Your task to perform on an android device: choose inbox layout in the gmail app Image 0: 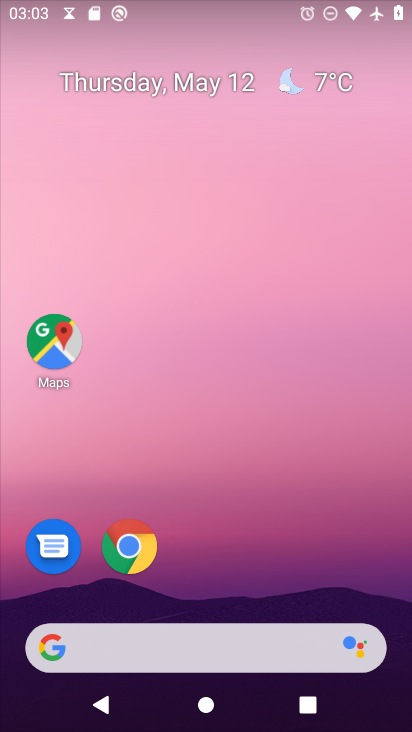
Step 0: drag from (169, 644) to (272, 168)
Your task to perform on an android device: choose inbox layout in the gmail app Image 1: 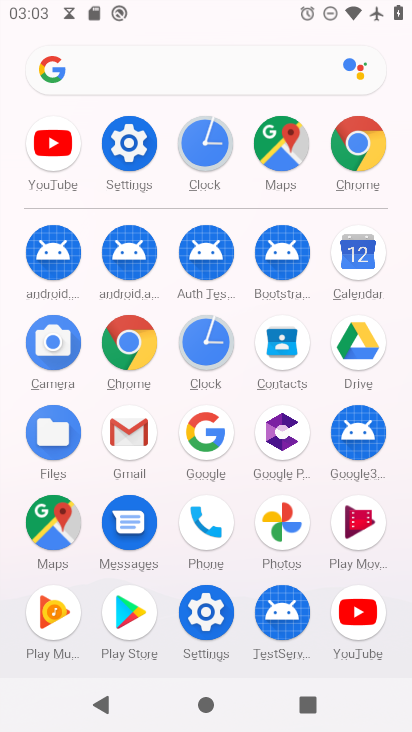
Step 1: click (120, 449)
Your task to perform on an android device: choose inbox layout in the gmail app Image 2: 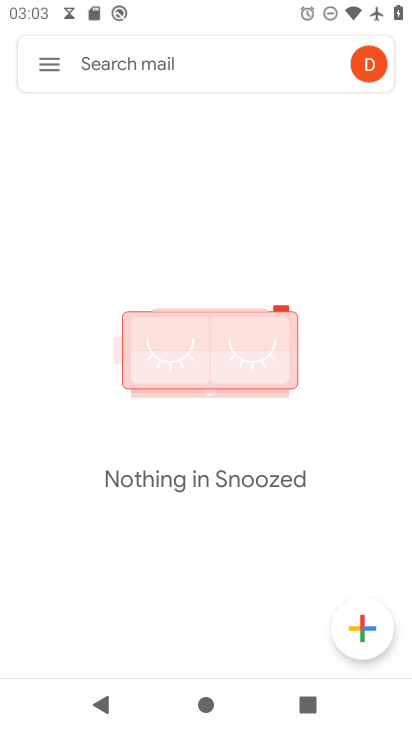
Step 2: click (54, 61)
Your task to perform on an android device: choose inbox layout in the gmail app Image 3: 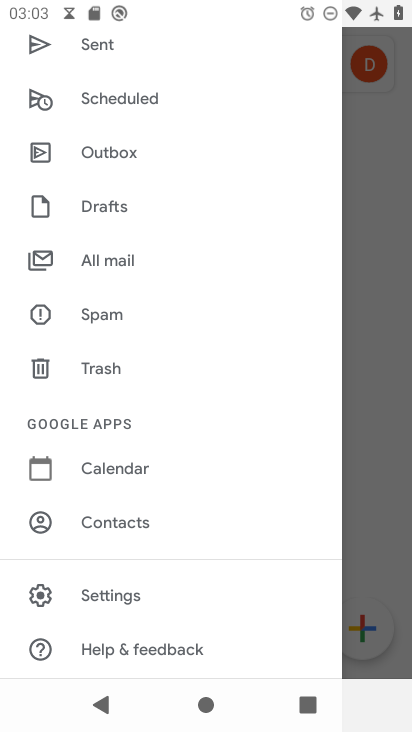
Step 3: click (137, 598)
Your task to perform on an android device: choose inbox layout in the gmail app Image 4: 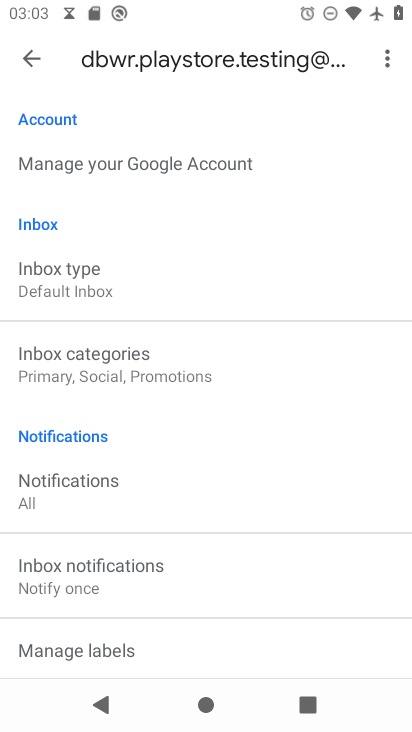
Step 4: click (102, 293)
Your task to perform on an android device: choose inbox layout in the gmail app Image 5: 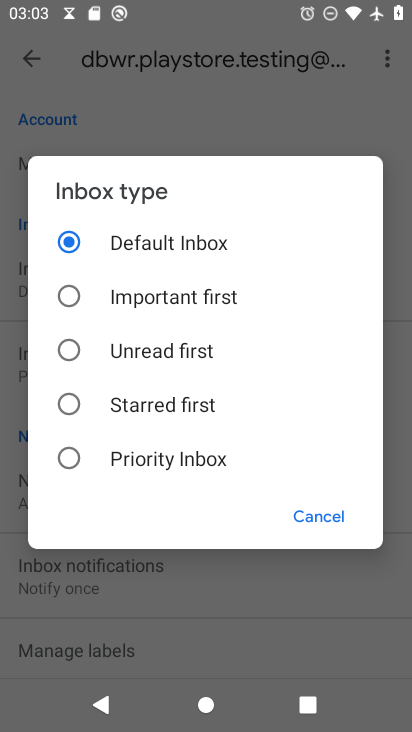
Step 5: click (64, 299)
Your task to perform on an android device: choose inbox layout in the gmail app Image 6: 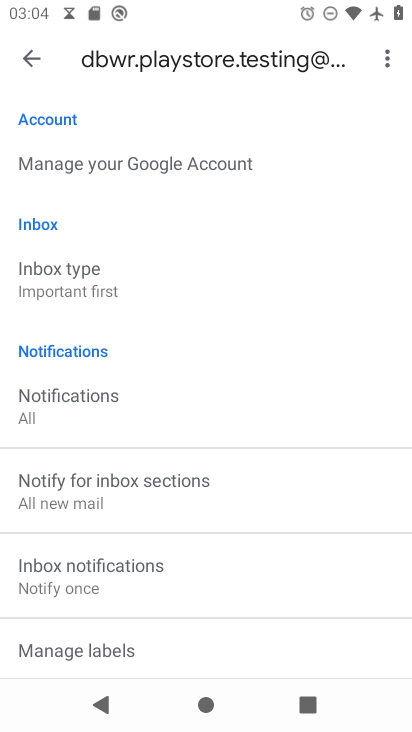
Step 6: task complete